Your task to perform on an android device: Show the shopping cart on bestbuy. Search for razer thresher on bestbuy, select the first entry, add it to the cart, then select checkout. Image 0: 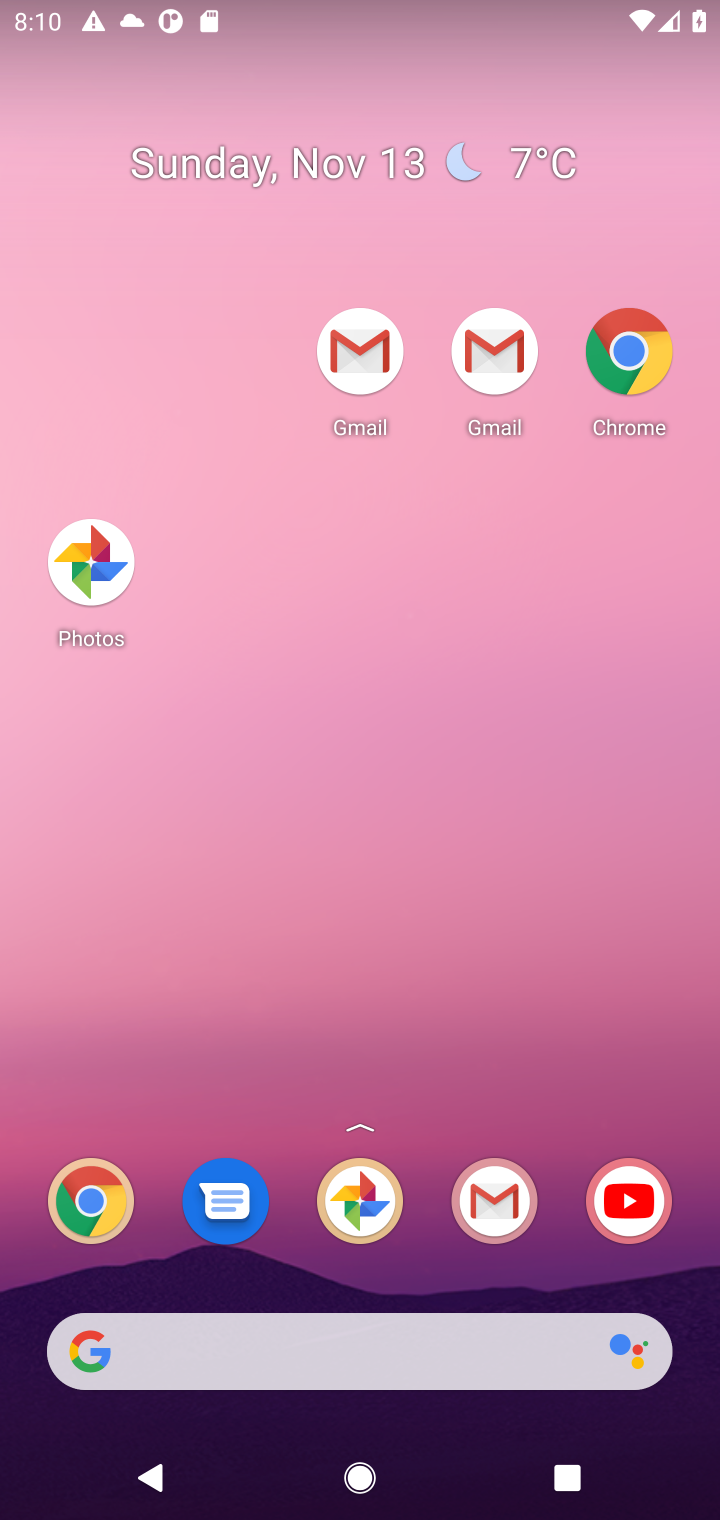
Step 0: drag from (448, 1273) to (507, 77)
Your task to perform on an android device: Show the shopping cart on bestbuy. Search for razer thresher on bestbuy, select the first entry, add it to the cart, then select checkout. Image 1: 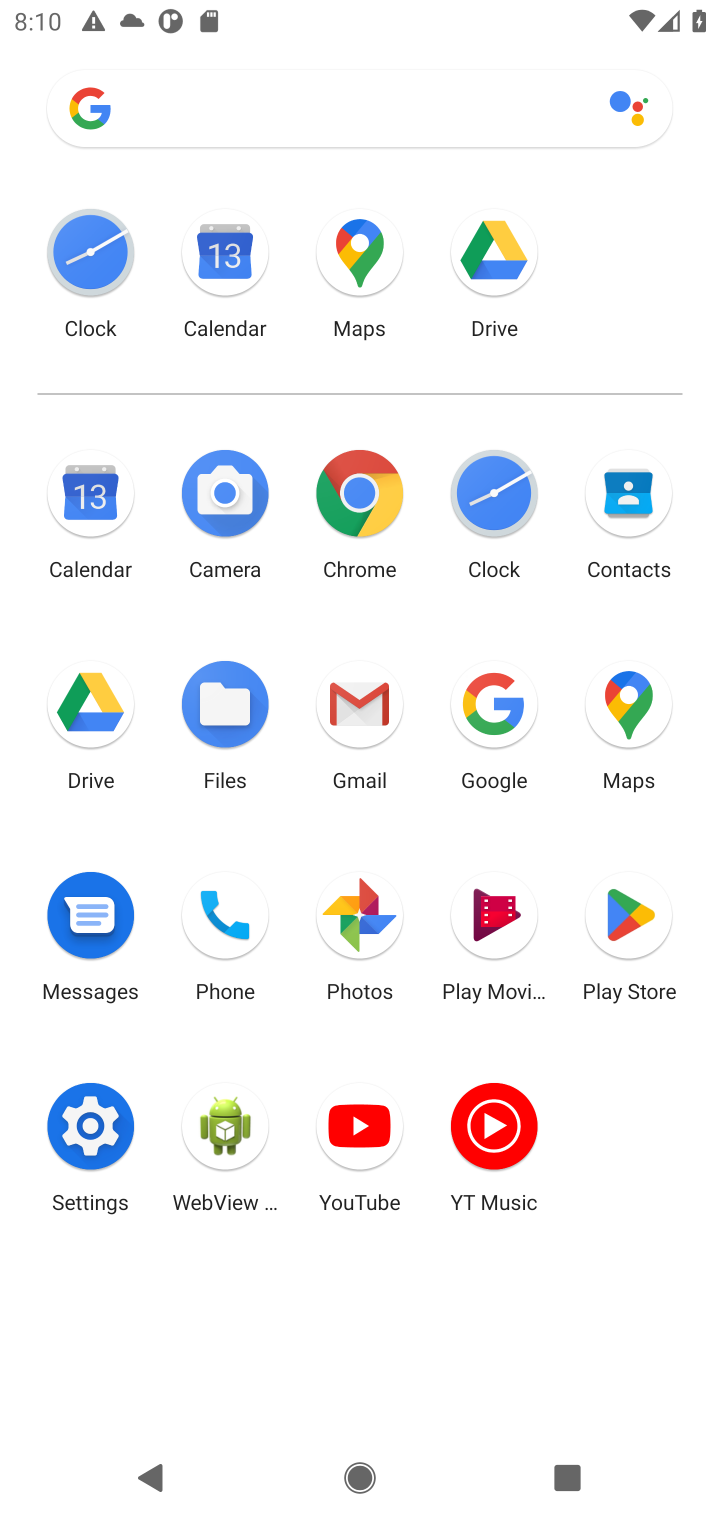
Step 1: click (373, 504)
Your task to perform on an android device: Show the shopping cart on bestbuy. Search for razer thresher on bestbuy, select the first entry, add it to the cart, then select checkout. Image 2: 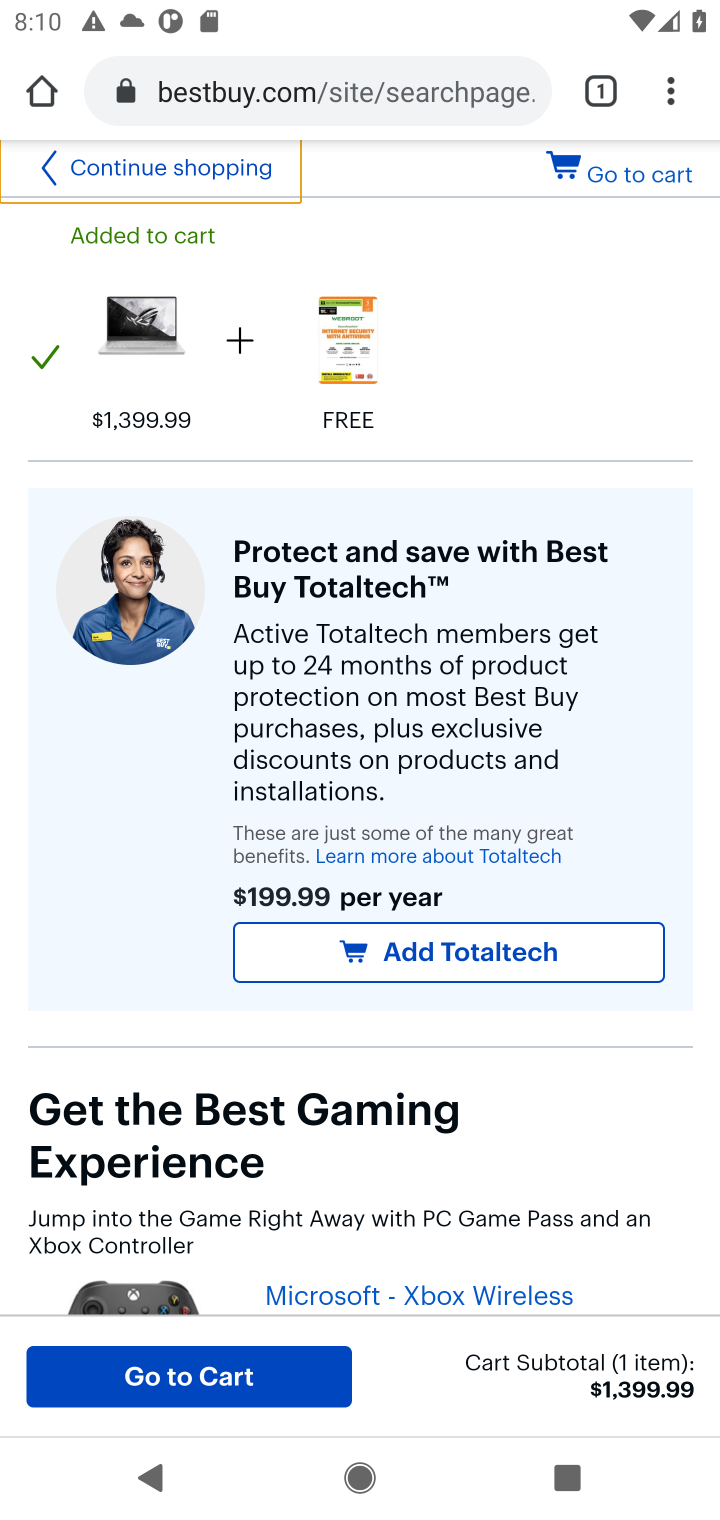
Step 2: click (233, 84)
Your task to perform on an android device: Show the shopping cart on bestbuy. Search for razer thresher on bestbuy, select the first entry, add it to the cart, then select checkout. Image 3: 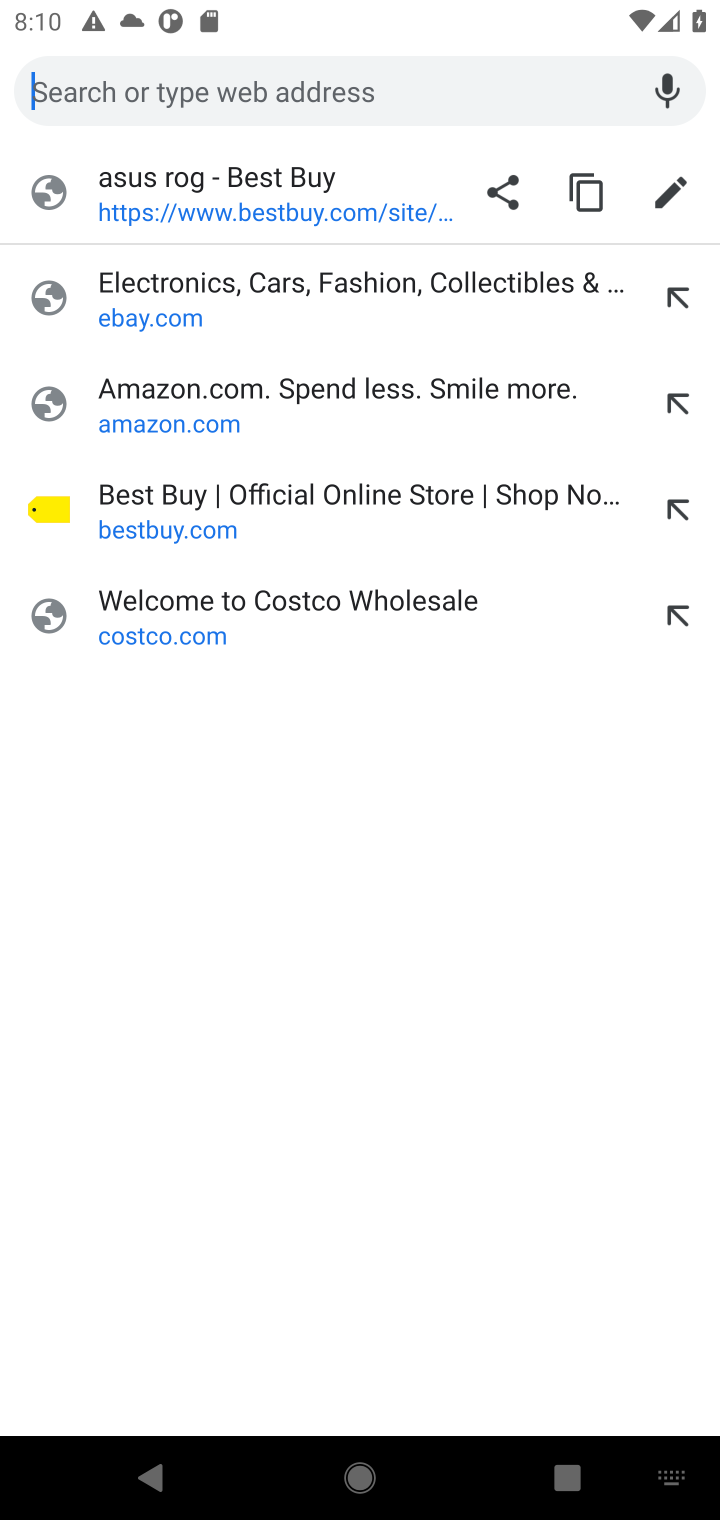
Step 3: type "bestbuy.com"
Your task to perform on an android device: Show the shopping cart on bestbuy. Search for razer thresher on bestbuy, select the first entry, add it to the cart, then select checkout. Image 4: 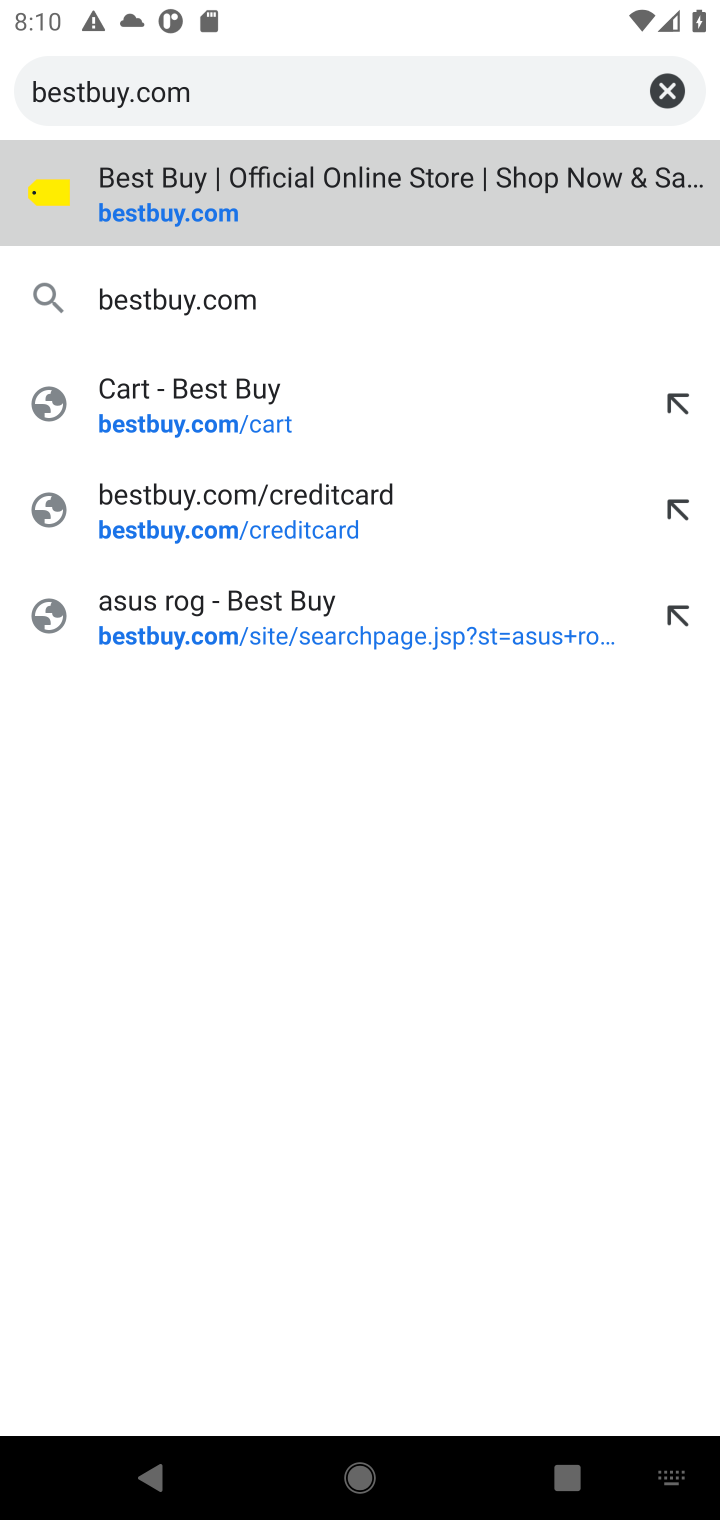
Step 4: press enter
Your task to perform on an android device: Show the shopping cart on bestbuy. Search for razer thresher on bestbuy, select the first entry, add it to the cart, then select checkout. Image 5: 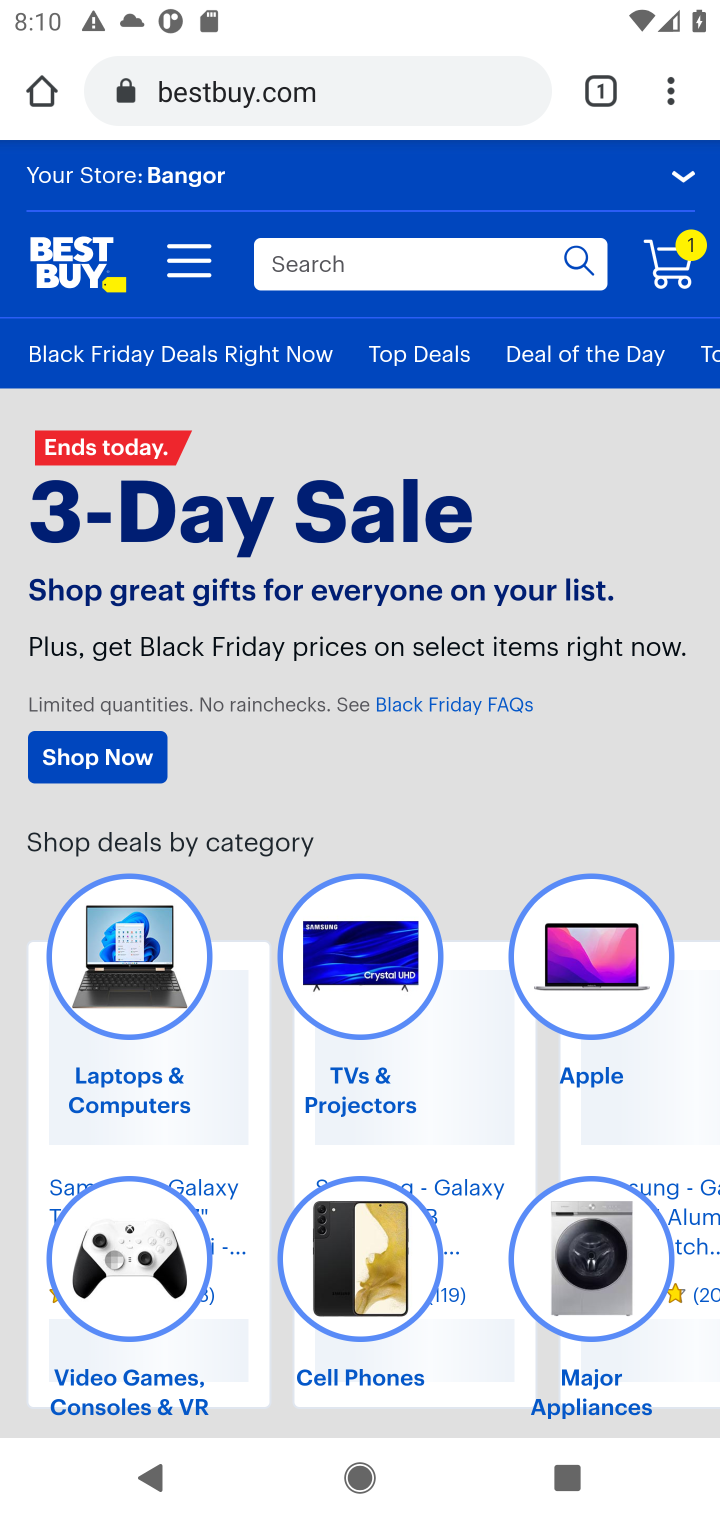
Step 5: click (660, 259)
Your task to perform on an android device: Show the shopping cart on bestbuy. Search for razer thresher on bestbuy, select the first entry, add it to the cart, then select checkout. Image 6: 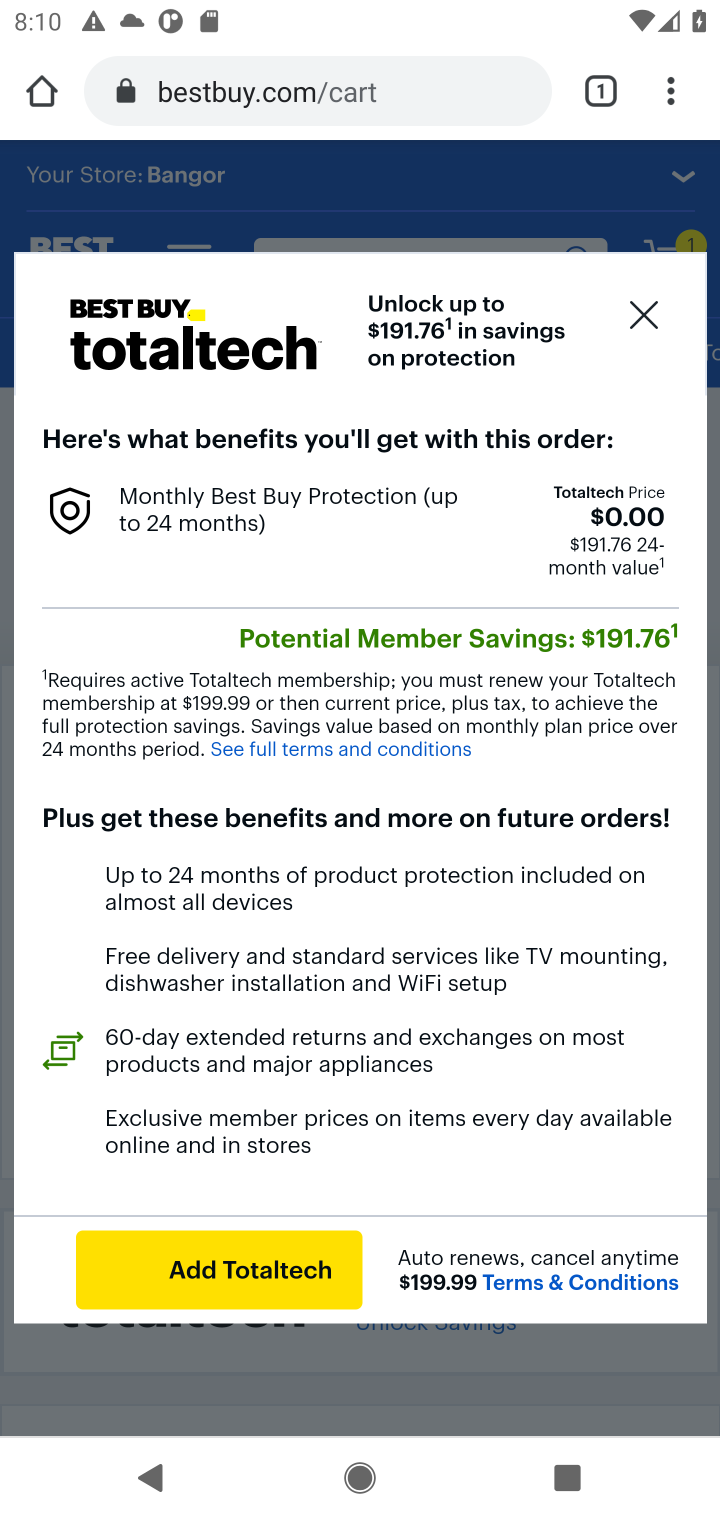
Step 6: click (492, 258)
Your task to perform on an android device: Show the shopping cart on bestbuy. Search for razer thresher on bestbuy, select the first entry, add it to the cart, then select checkout. Image 7: 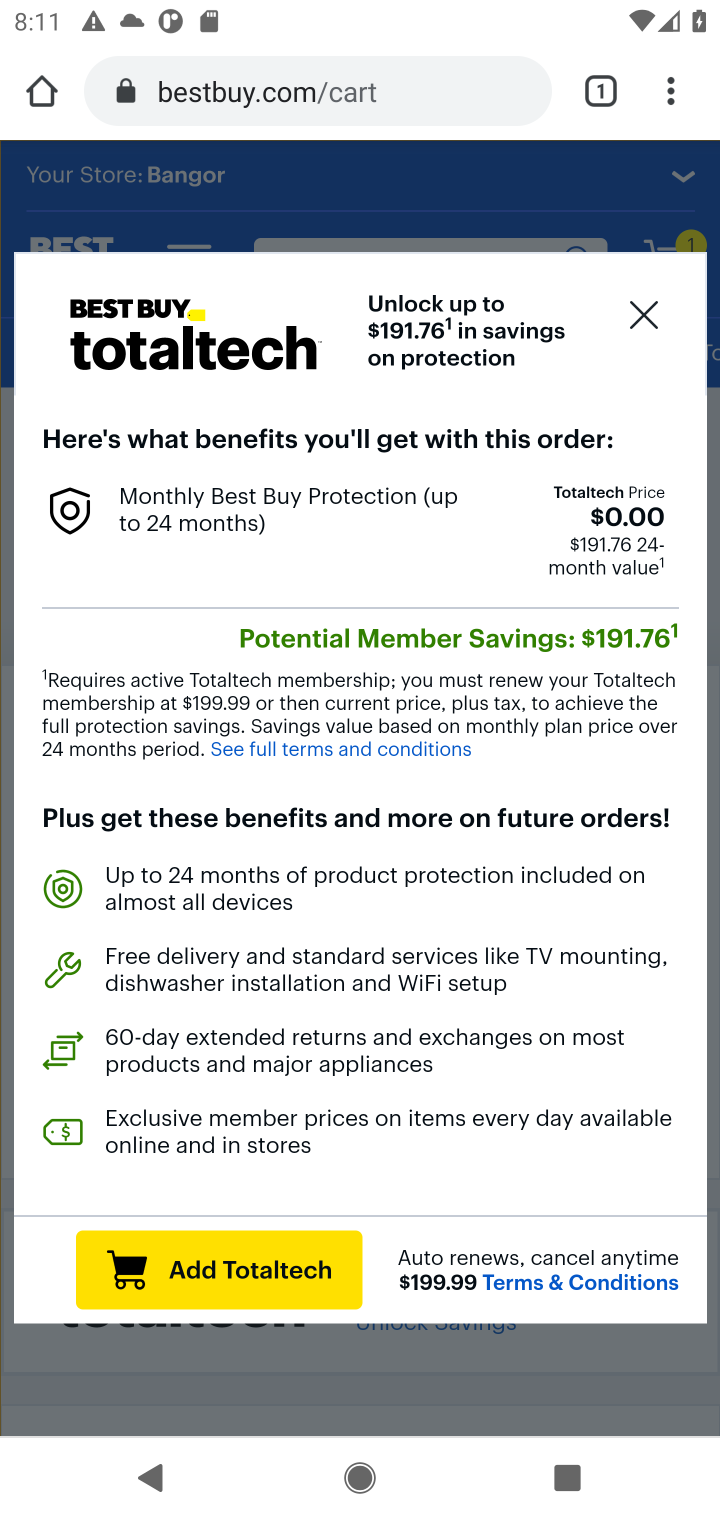
Step 7: type "razer thresher"
Your task to perform on an android device: Show the shopping cart on bestbuy. Search for razer thresher on bestbuy, select the first entry, add it to the cart, then select checkout. Image 8: 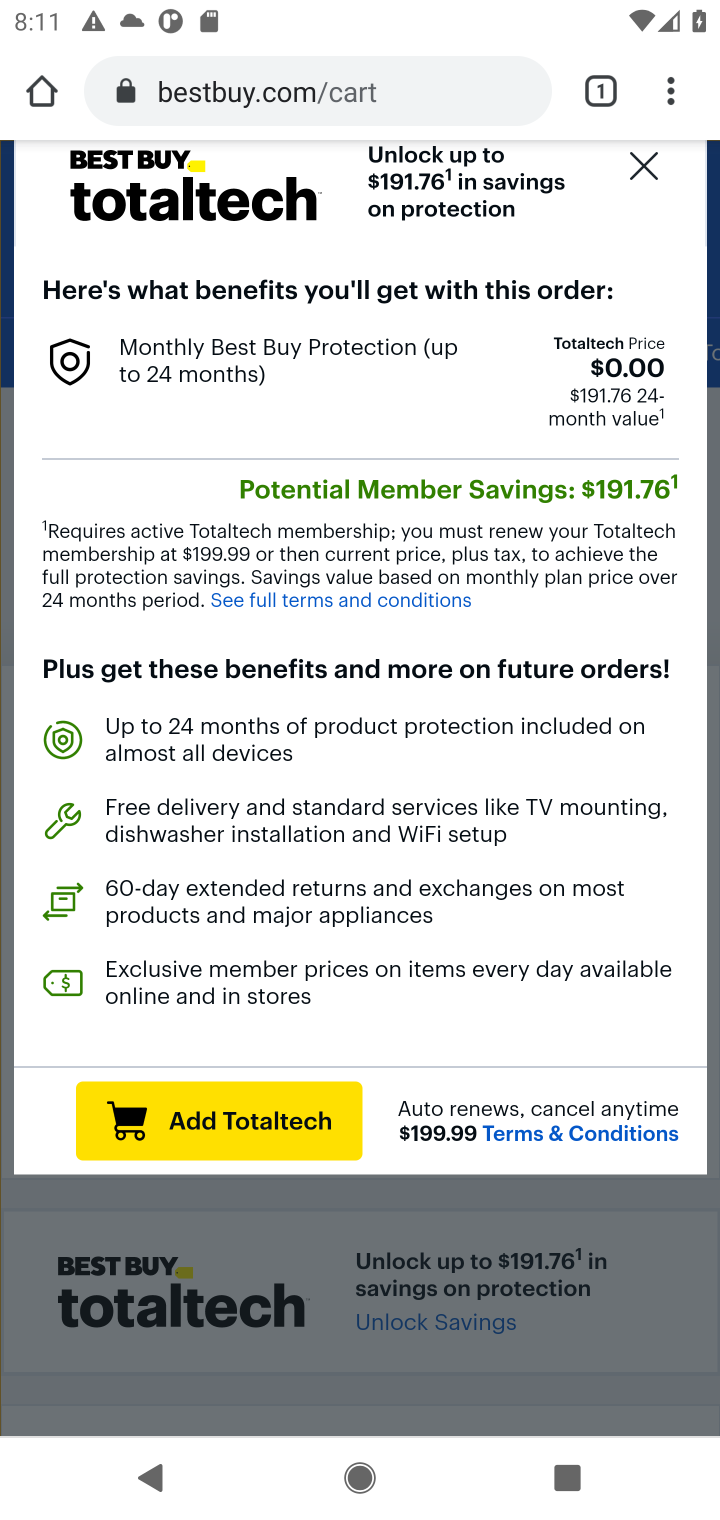
Step 8: click (641, 169)
Your task to perform on an android device: Show the shopping cart on bestbuy. Search for razer thresher on bestbuy, select the first entry, add it to the cart, then select checkout. Image 9: 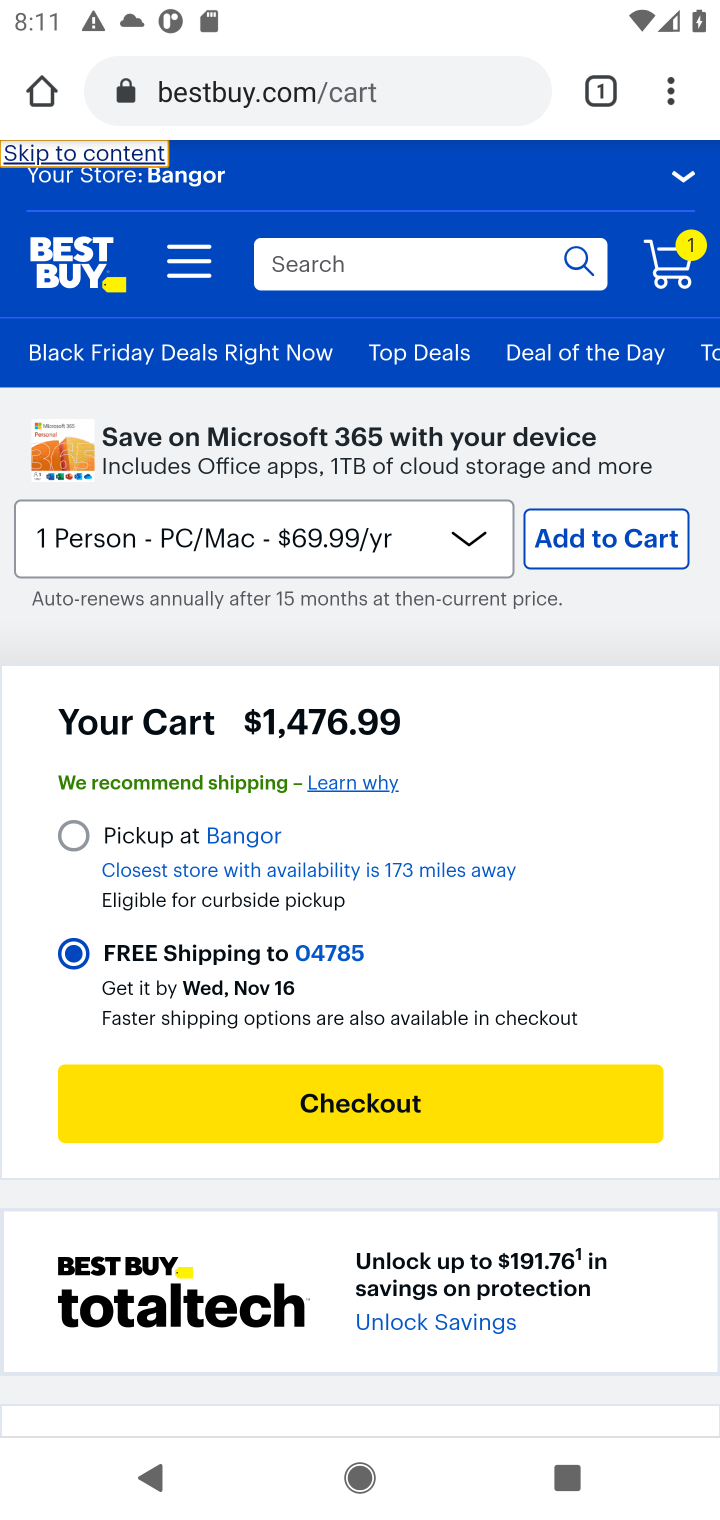
Step 9: click (438, 261)
Your task to perform on an android device: Show the shopping cart on bestbuy. Search for razer thresher on bestbuy, select the first entry, add it to the cart, then select checkout. Image 10: 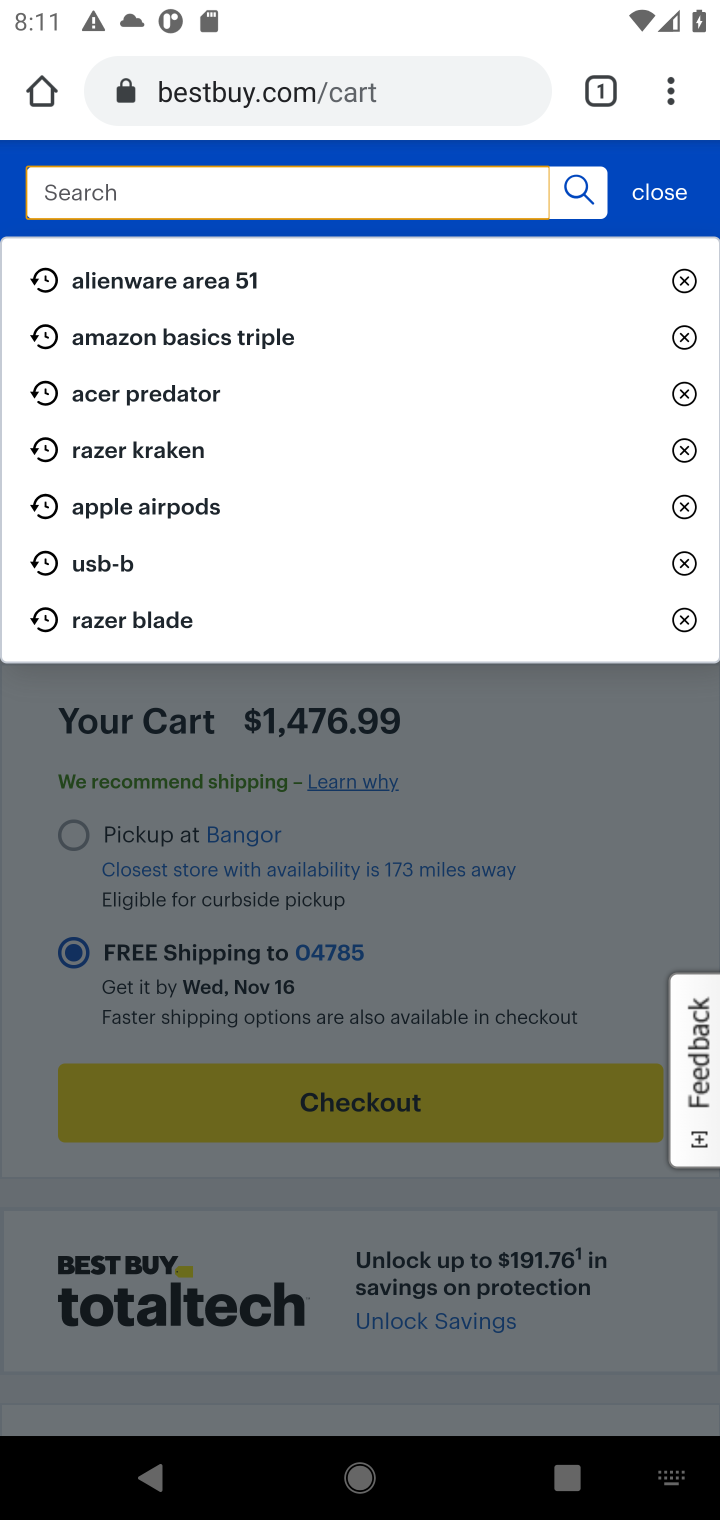
Step 10: type "razer thresher"
Your task to perform on an android device: Show the shopping cart on bestbuy. Search for razer thresher on bestbuy, select the first entry, add it to the cart, then select checkout. Image 11: 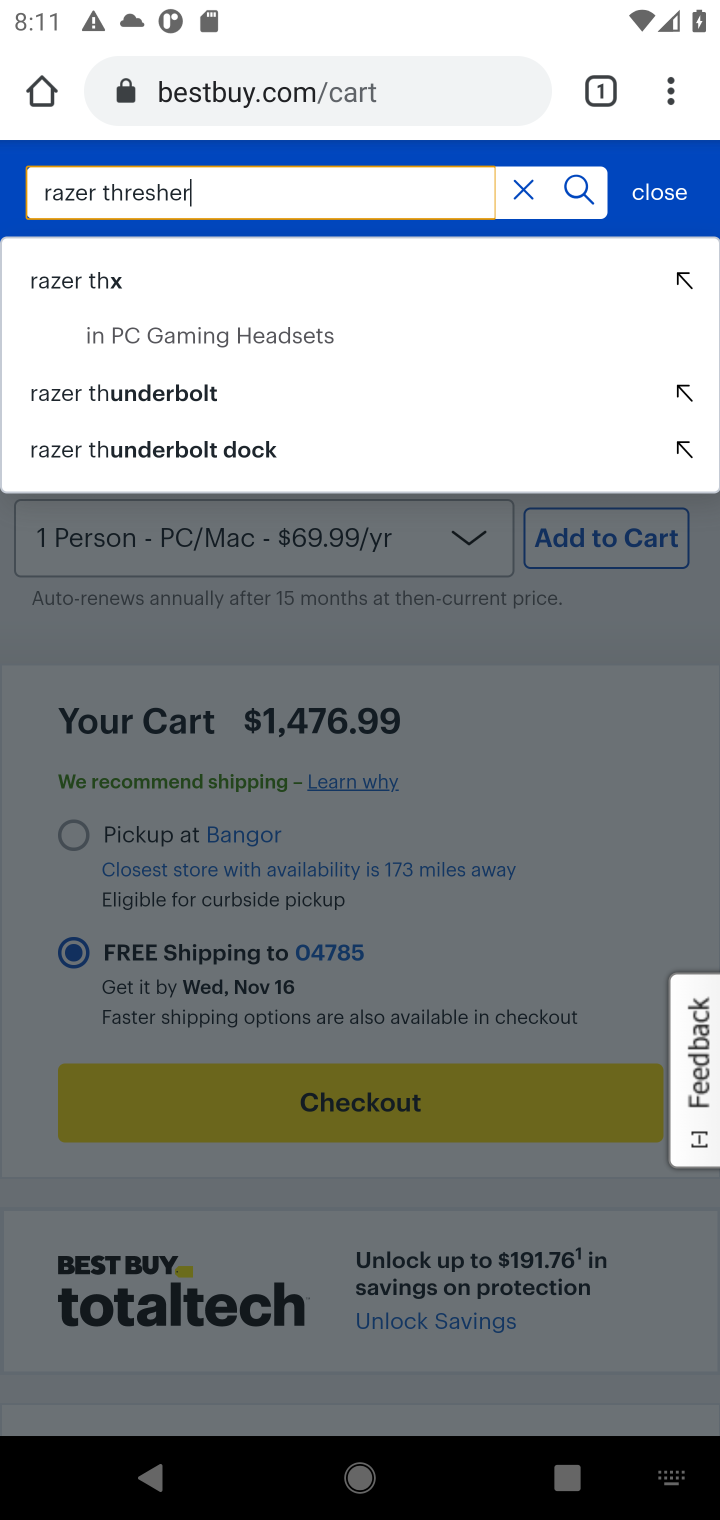
Step 11: press enter
Your task to perform on an android device: Show the shopping cart on bestbuy. Search for razer thresher on bestbuy, select the first entry, add it to the cart, then select checkout. Image 12: 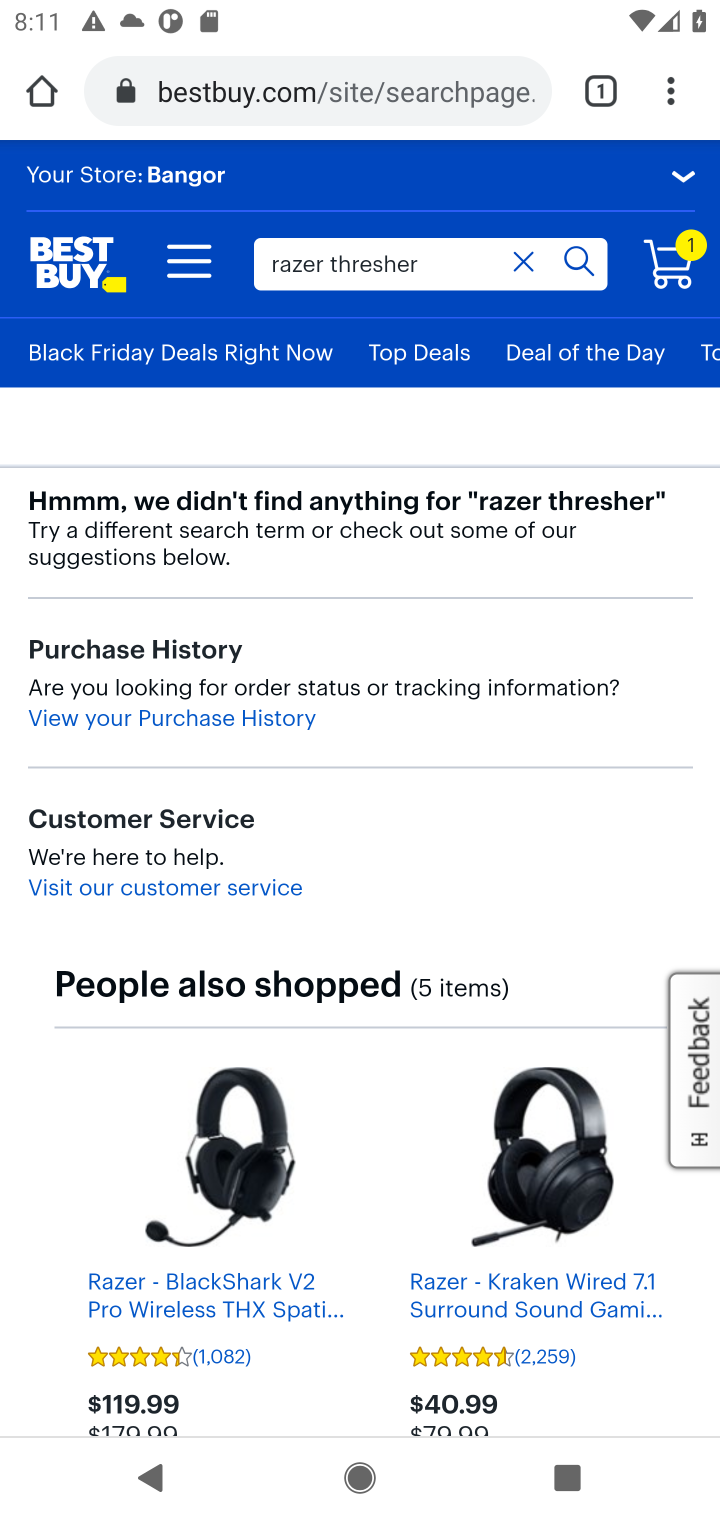
Step 12: task complete